Your task to perform on an android device: change keyboard looks Image 0: 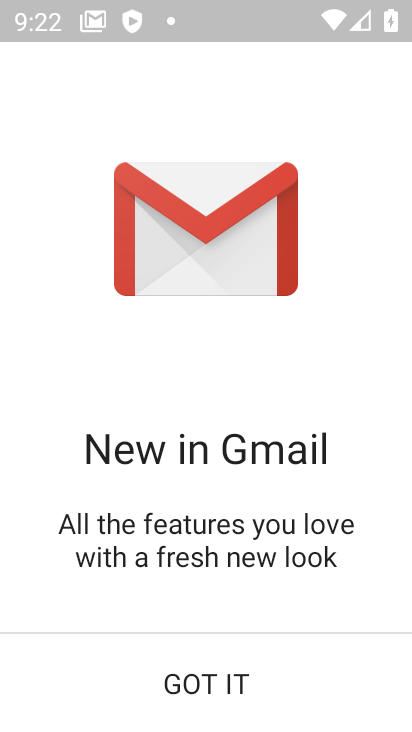
Step 0: press home button
Your task to perform on an android device: change keyboard looks Image 1: 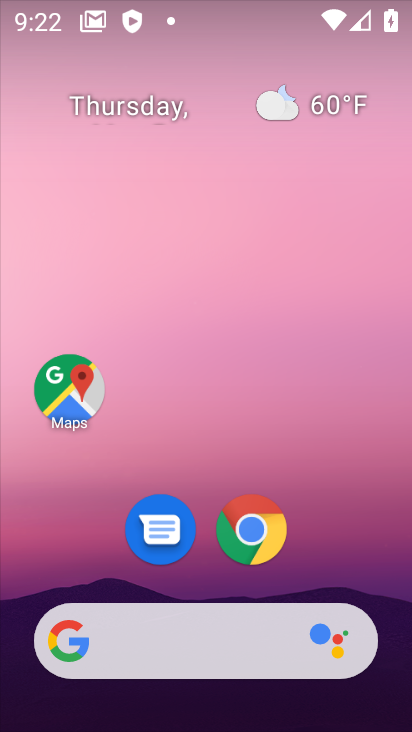
Step 1: drag from (347, 331) to (338, 293)
Your task to perform on an android device: change keyboard looks Image 2: 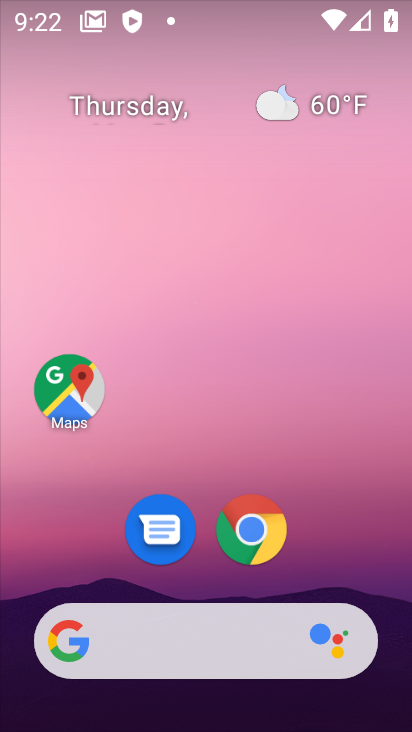
Step 2: click (363, 216)
Your task to perform on an android device: change keyboard looks Image 3: 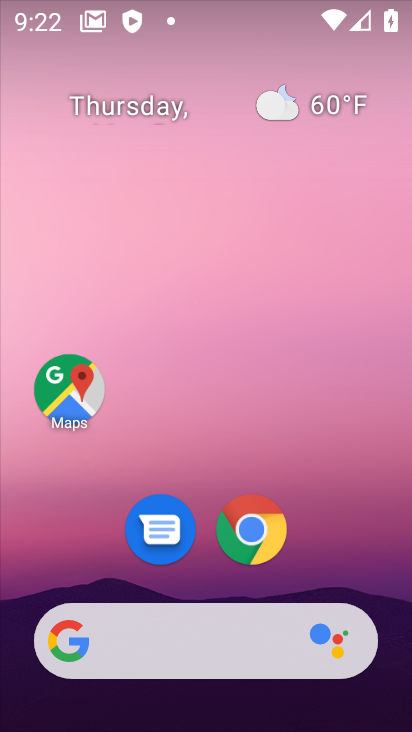
Step 3: drag from (390, 610) to (344, 195)
Your task to perform on an android device: change keyboard looks Image 4: 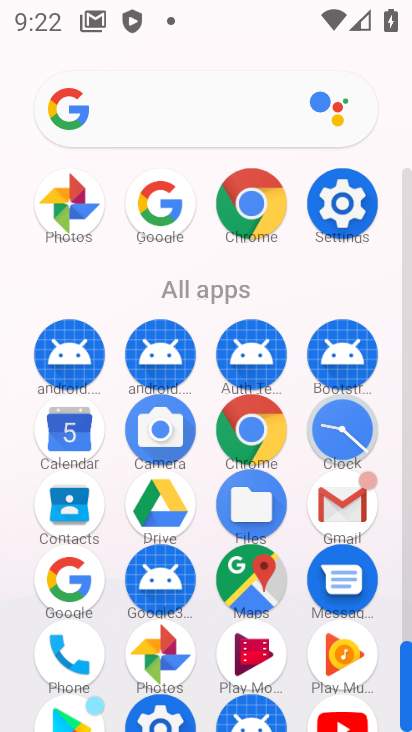
Step 4: click (332, 203)
Your task to perform on an android device: change keyboard looks Image 5: 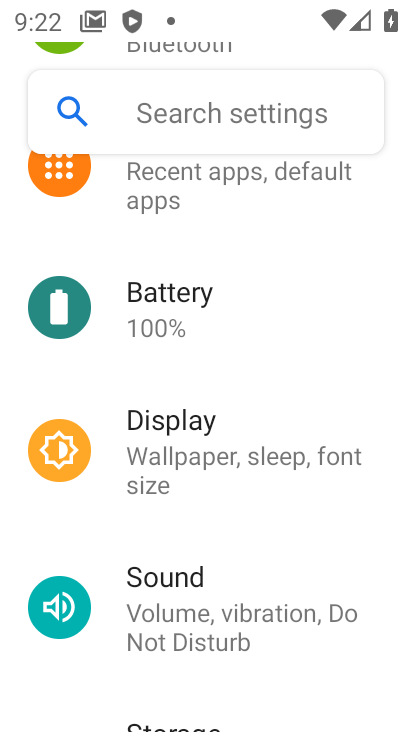
Step 5: drag from (348, 672) to (304, 240)
Your task to perform on an android device: change keyboard looks Image 6: 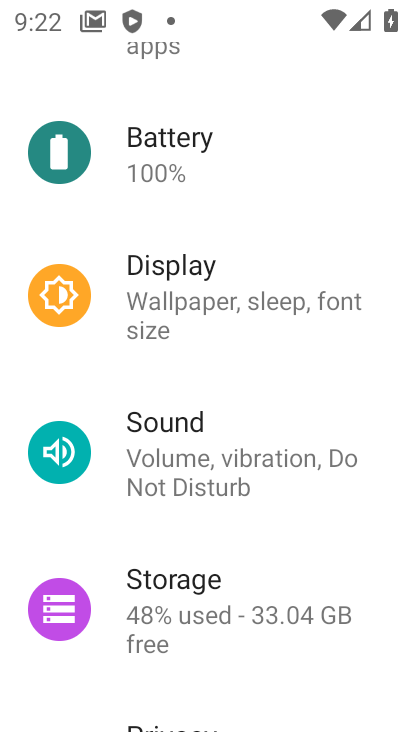
Step 6: drag from (336, 676) to (283, 246)
Your task to perform on an android device: change keyboard looks Image 7: 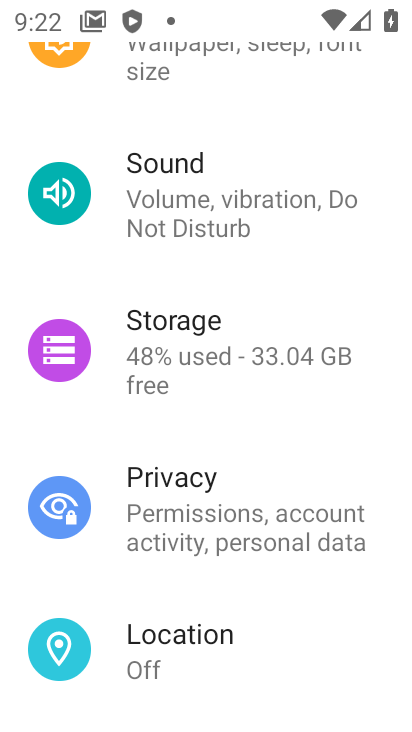
Step 7: drag from (294, 662) to (278, 236)
Your task to perform on an android device: change keyboard looks Image 8: 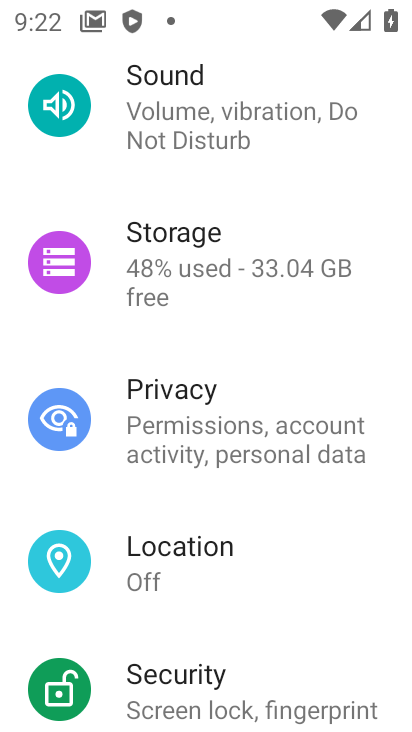
Step 8: drag from (330, 640) to (320, 229)
Your task to perform on an android device: change keyboard looks Image 9: 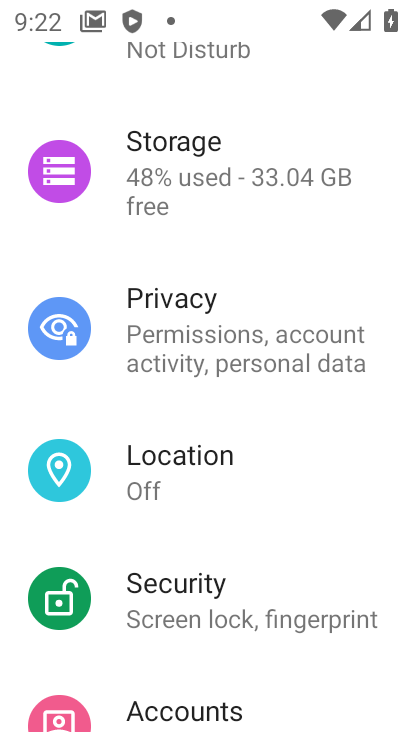
Step 9: drag from (325, 647) to (280, 200)
Your task to perform on an android device: change keyboard looks Image 10: 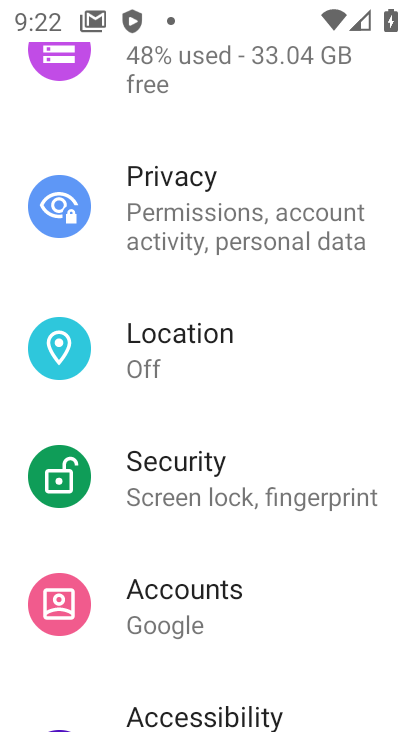
Step 10: drag from (313, 589) to (276, 144)
Your task to perform on an android device: change keyboard looks Image 11: 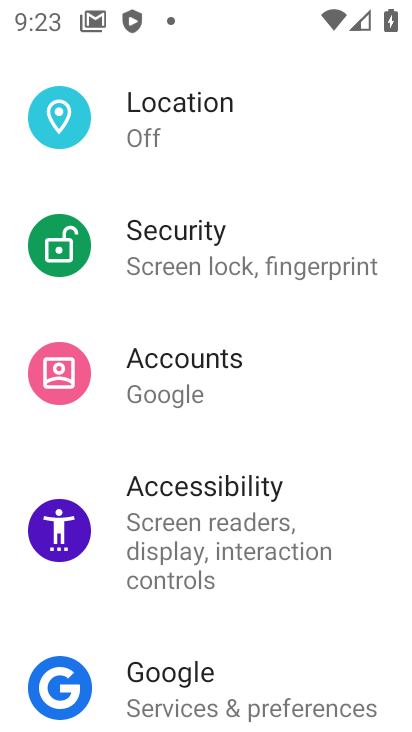
Step 11: drag from (326, 706) to (334, 421)
Your task to perform on an android device: change keyboard looks Image 12: 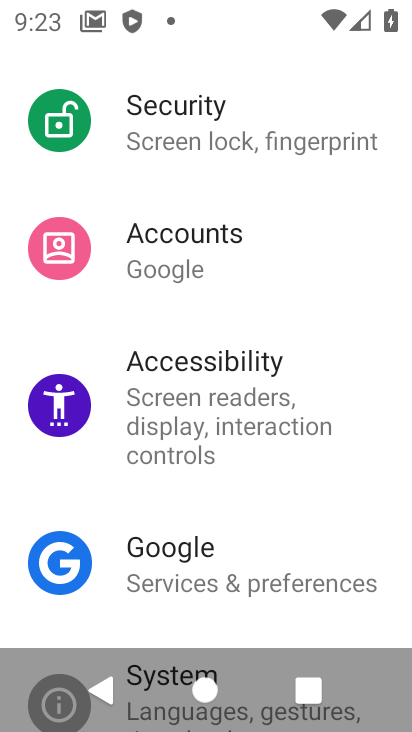
Step 12: drag from (351, 610) to (373, 213)
Your task to perform on an android device: change keyboard looks Image 13: 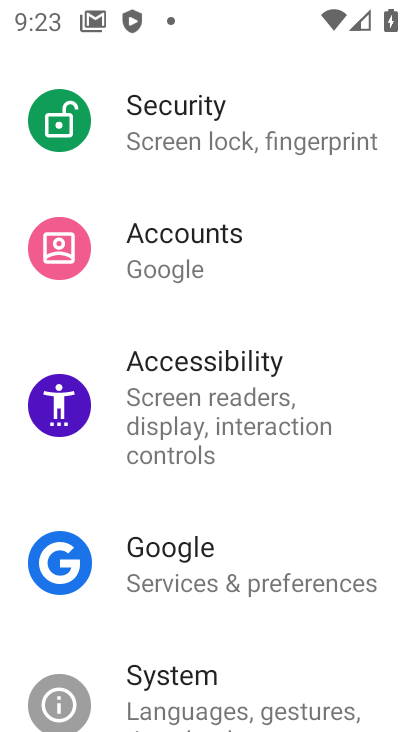
Step 13: click (170, 703)
Your task to perform on an android device: change keyboard looks Image 14: 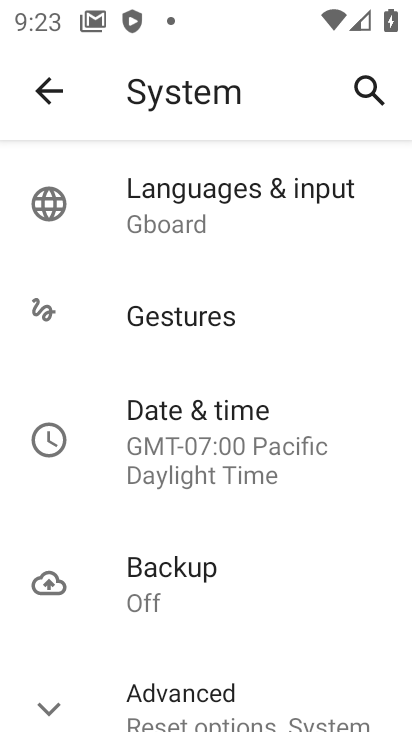
Step 14: click (185, 184)
Your task to perform on an android device: change keyboard looks Image 15: 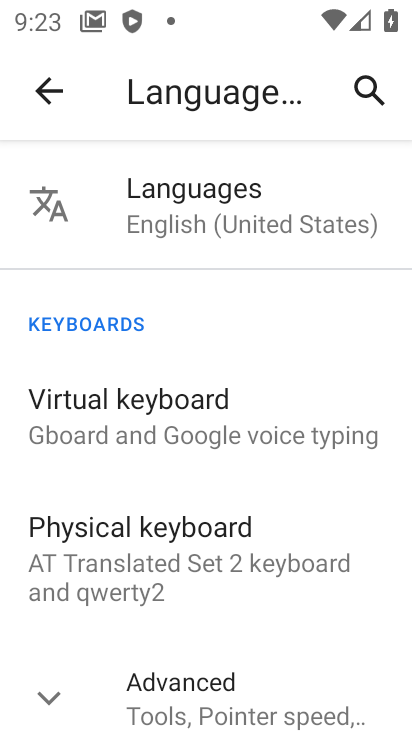
Step 15: click (151, 409)
Your task to perform on an android device: change keyboard looks Image 16: 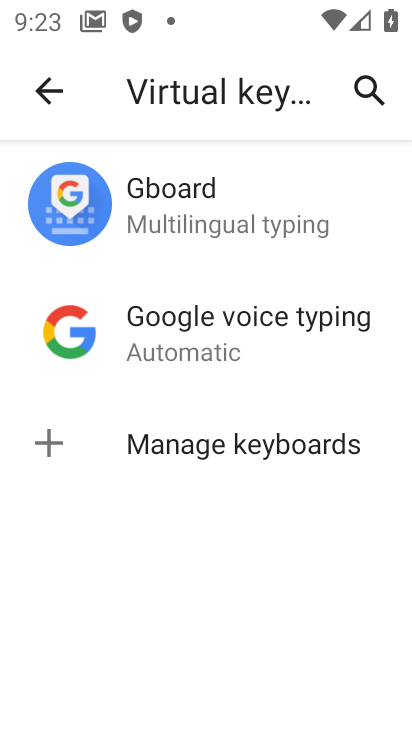
Step 16: click (141, 205)
Your task to perform on an android device: change keyboard looks Image 17: 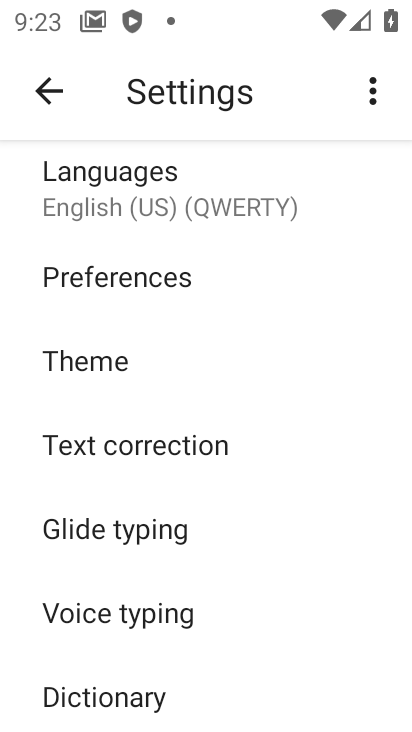
Step 17: click (103, 354)
Your task to perform on an android device: change keyboard looks Image 18: 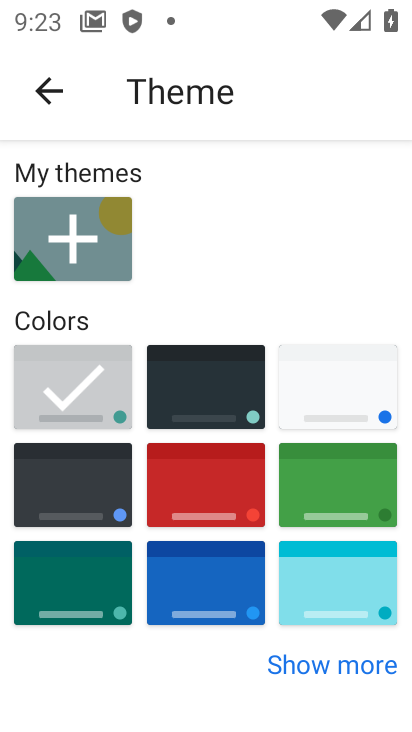
Step 18: click (224, 491)
Your task to perform on an android device: change keyboard looks Image 19: 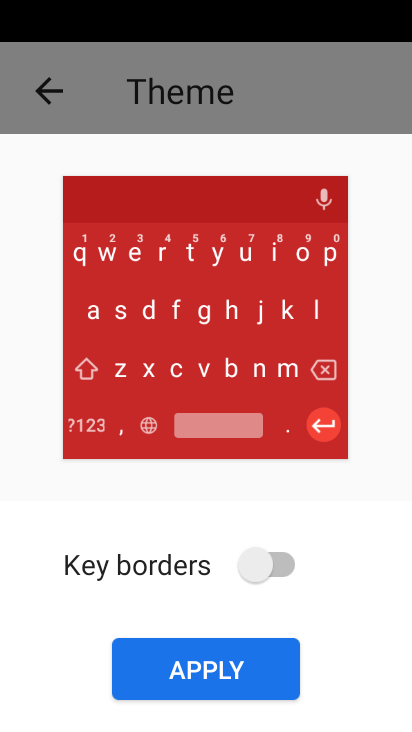
Step 19: click (277, 562)
Your task to perform on an android device: change keyboard looks Image 20: 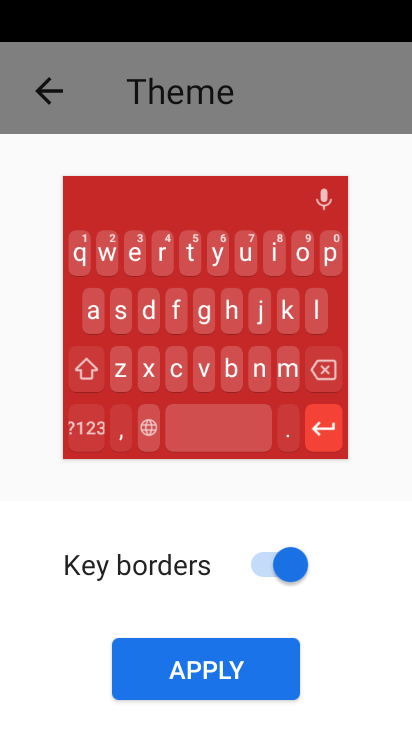
Step 20: click (235, 669)
Your task to perform on an android device: change keyboard looks Image 21: 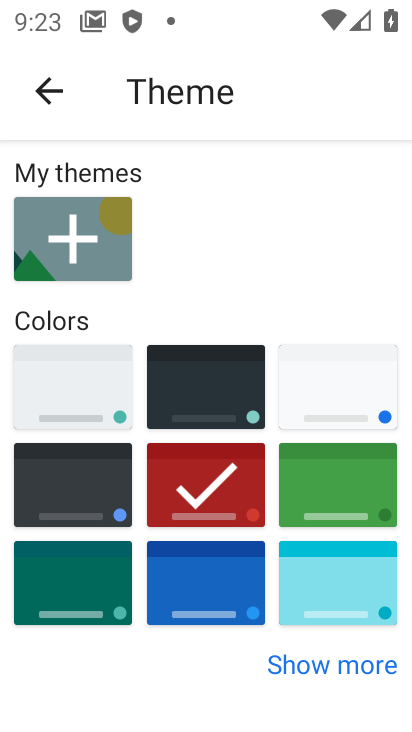
Step 21: task complete